Your task to perform on an android device: remove spam from my inbox in the gmail app Image 0: 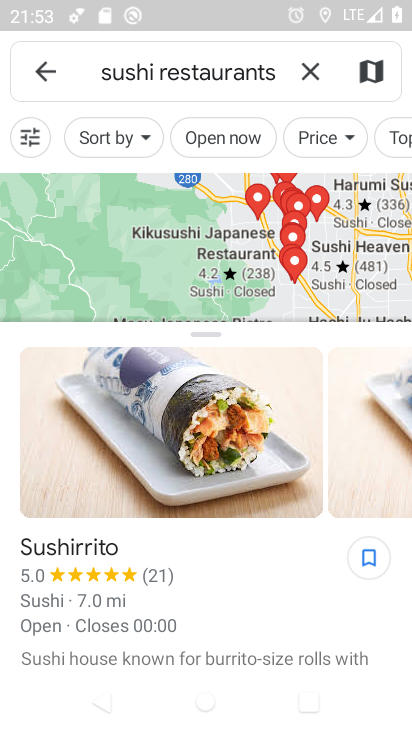
Step 0: press home button
Your task to perform on an android device: remove spam from my inbox in the gmail app Image 1: 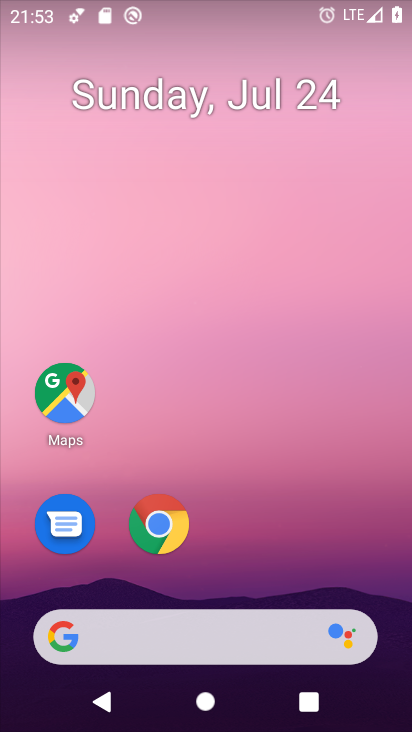
Step 1: drag from (262, 584) to (307, 15)
Your task to perform on an android device: remove spam from my inbox in the gmail app Image 2: 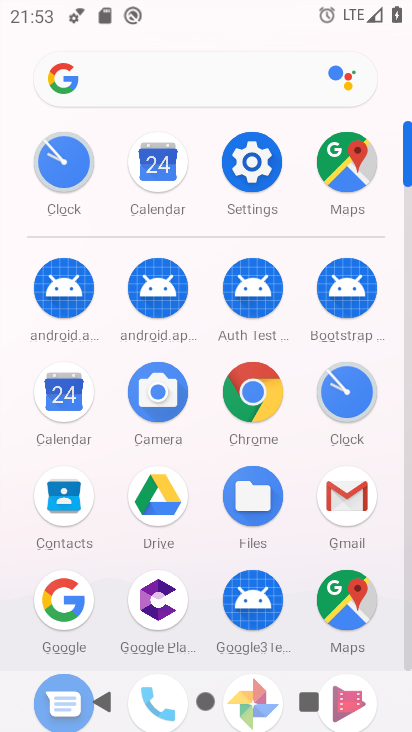
Step 2: click (344, 483)
Your task to perform on an android device: remove spam from my inbox in the gmail app Image 3: 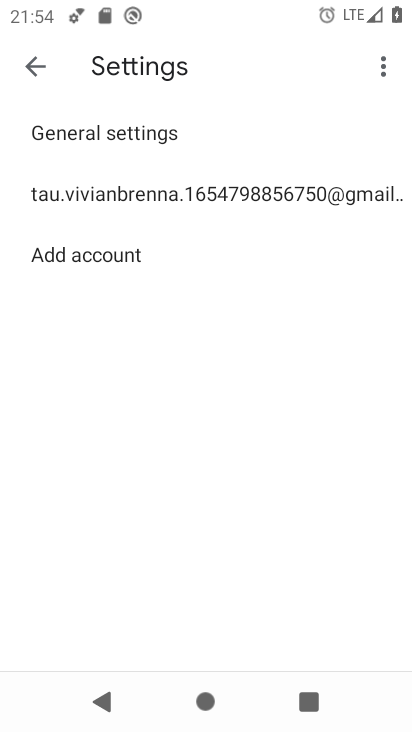
Step 3: click (33, 64)
Your task to perform on an android device: remove spam from my inbox in the gmail app Image 4: 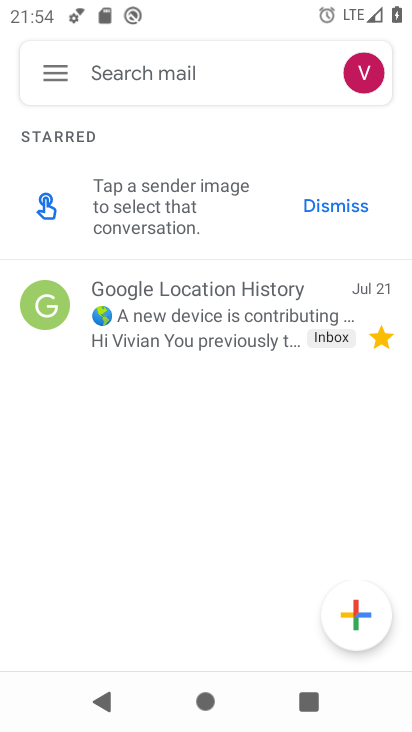
Step 4: click (47, 76)
Your task to perform on an android device: remove spam from my inbox in the gmail app Image 5: 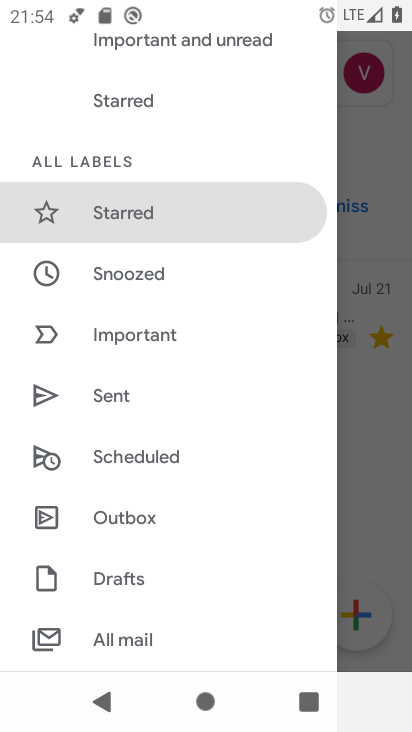
Step 5: drag from (194, 558) to (226, 150)
Your task to perform on an android device: remove spam from my inbox in the gmail app Image 6: 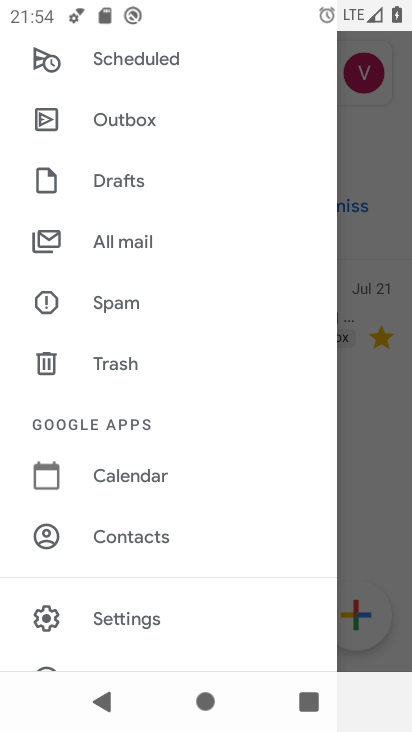
Step 6: click (125, 310)
Your task to perform on an android device: remove spam from my inbox in the gmail app Image 7: 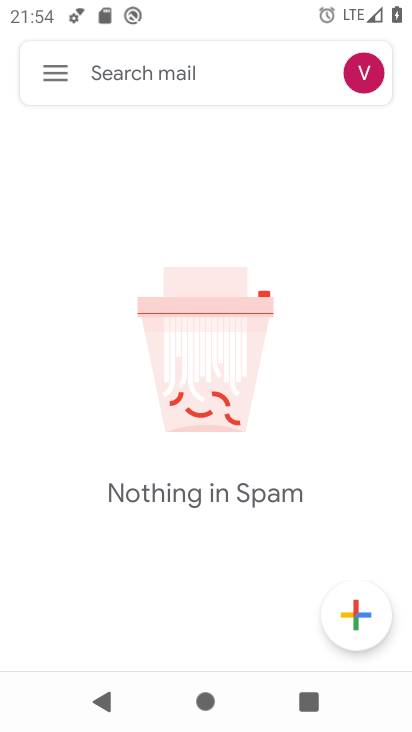
Step 7: task complete